Your task to perform on an android device: move a message to another label in the gmail app Image 0: 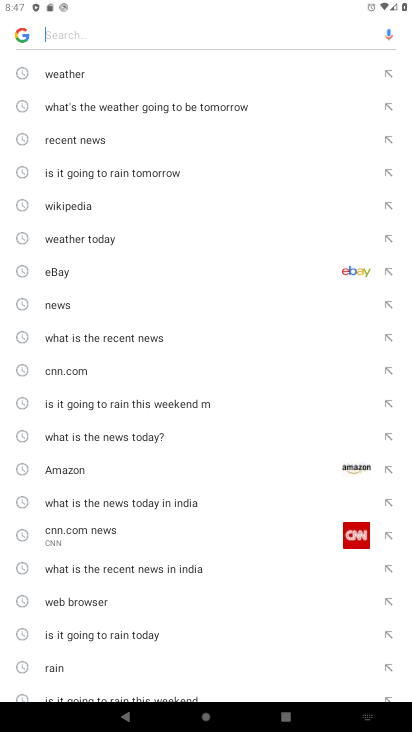
Step 0: press home button
Your task to perform on an android device: move a message to another label in the gmail app Image 1: 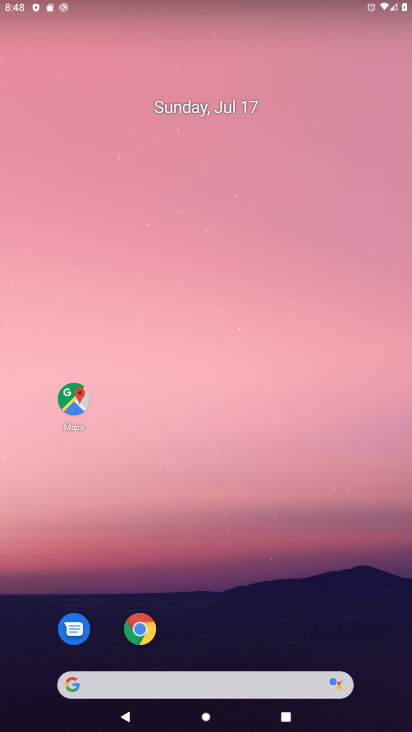
Step 1: drag from (225, 618) to (292, 104)
Your task to perform on an android device: move a message to another label in the gmail app Image 2: 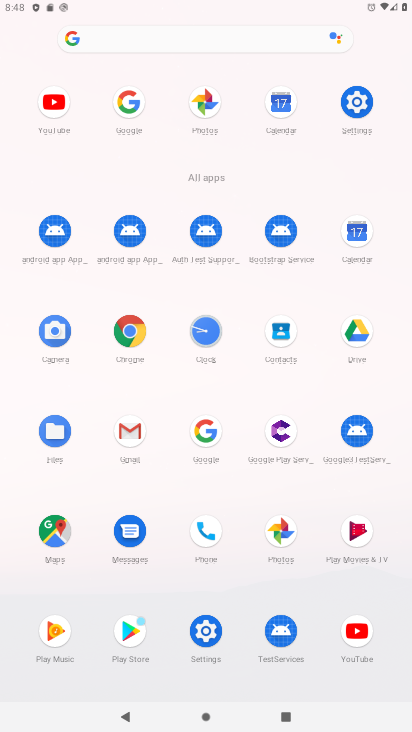
Step 2: click (129, 429)
Your task to perform on an android device: move a message to another label in the gmail app Image 3: 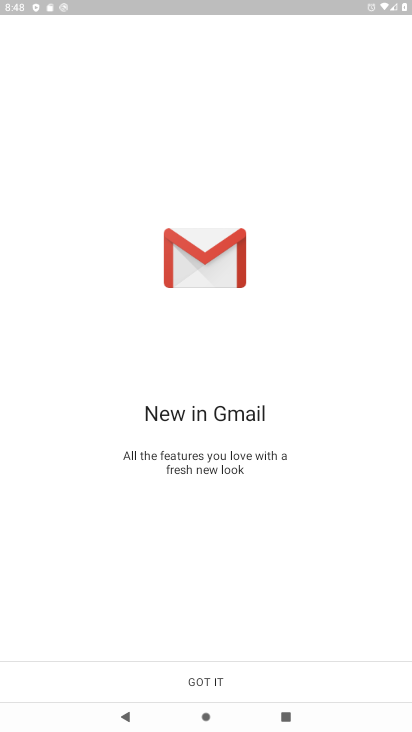
Step 3: click (325, 669)
Your task to perform on an android device: move a message to another label in the gmail app Image 4: 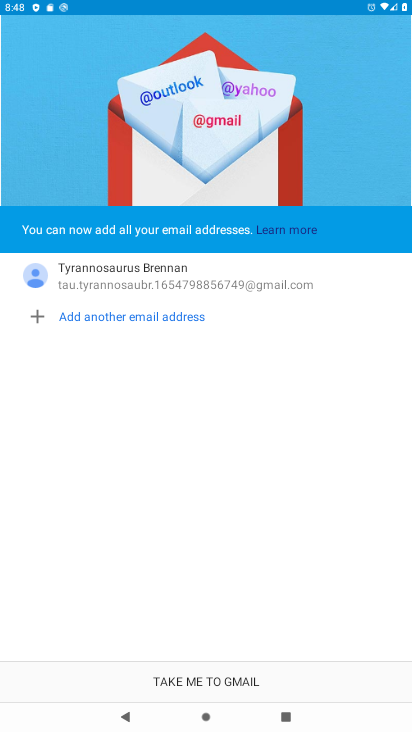
Step 4: click (325, 669)
Your task to perform on an android device: move a message to another label in the gmail app Image 5: 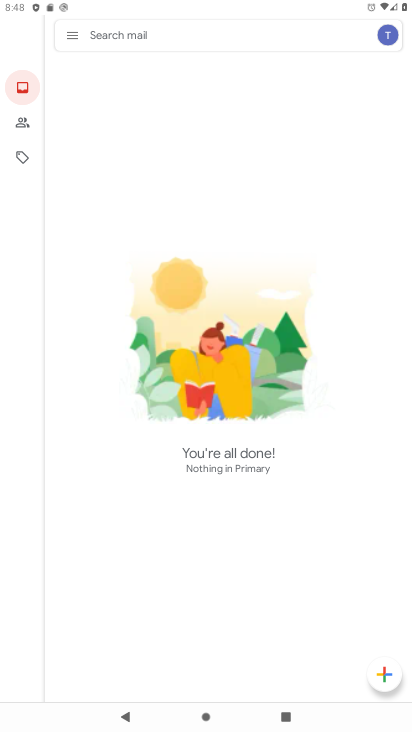
Step 5: click (73, 28)
Your task to perform on an android device: move a message to another label in the gmail app Image 6: 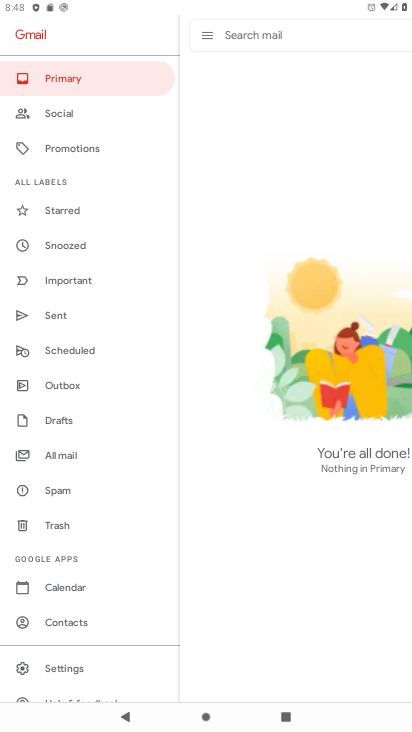
Step 6: click (51, 454)
Your task to perform on an android device: move a message to another label in the gmail app Image 7: 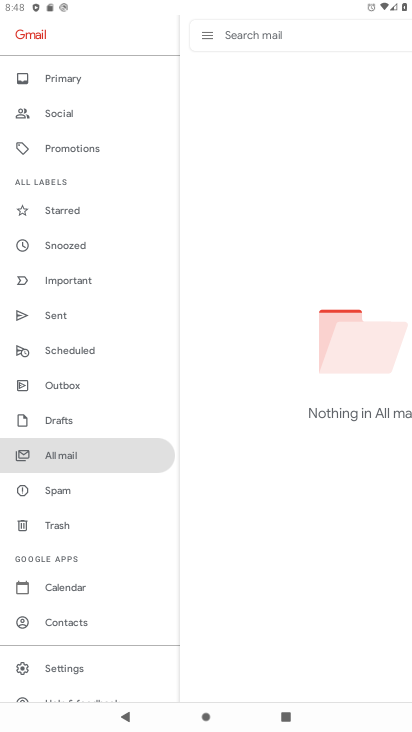
Step 7: task complete